Your task to perform on an android device: turn on improve location accuracy Image 0: 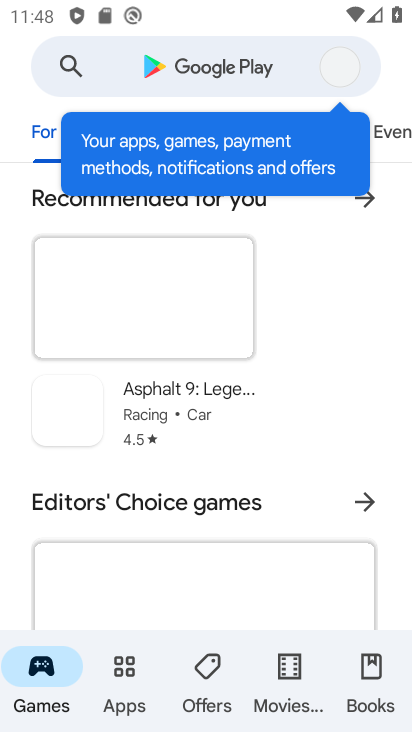
Step 0: press home button
Your task to perform on an android device: turn on improve location accuracy Image 1: 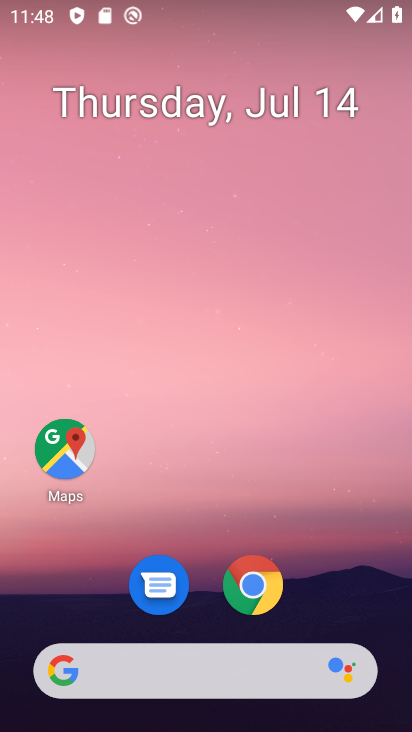
Step 1: drag from (233, 536) to (255, 114)
Your task to perform on an android device: turn on improve location accuracy Image 2: 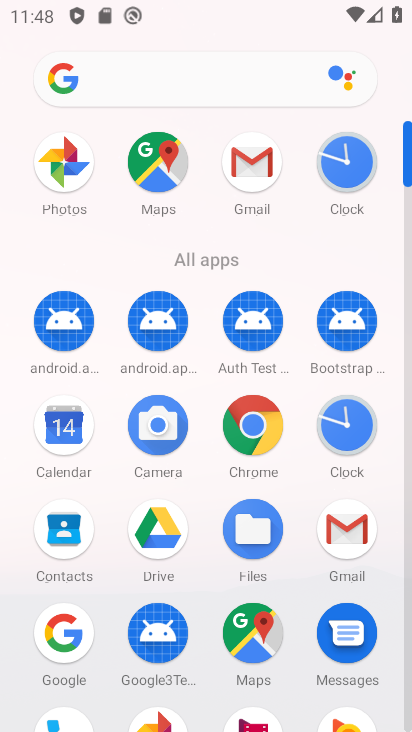
Step 2: drag from (212, 494) to (227, 144)
Your task to perform on an android device: turn on improve location accuracy Image 3: 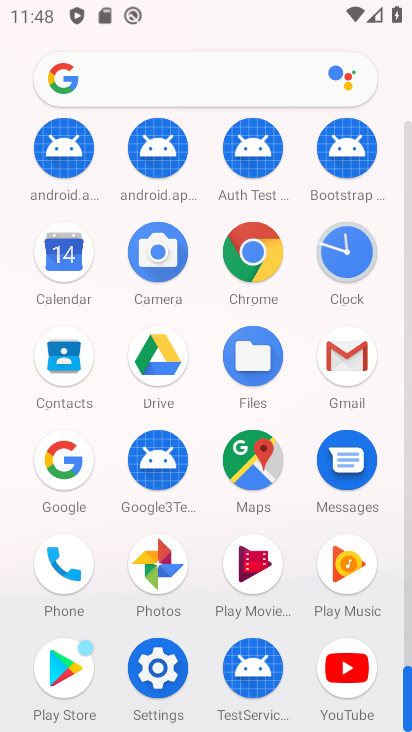
Step 3: click (163, 666)
Your task to perform on an android device: turn on improve location accuracy Image 4: 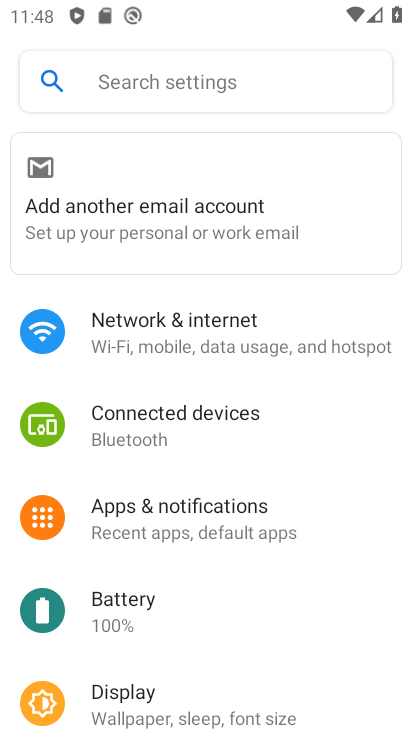
Step 4: drag from (233, 594) to (210, 226)
Your task to perform on an android device: turn on improve location accuracy Image 5: 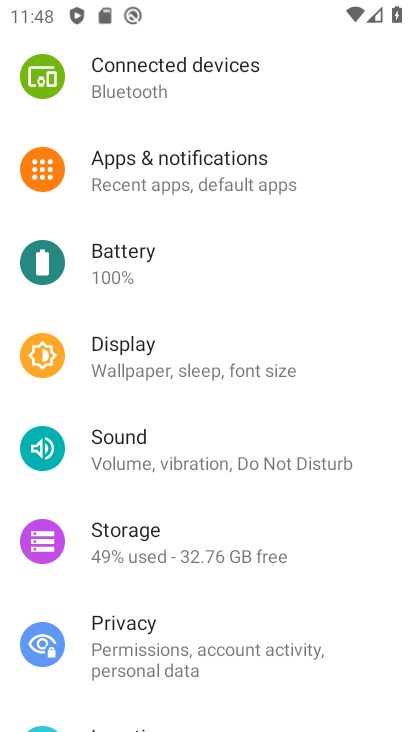
Step 5: drag from (213, 525) to (233, 231)
Your task to perform on an android device: turn on improve location accuracy Image 6: 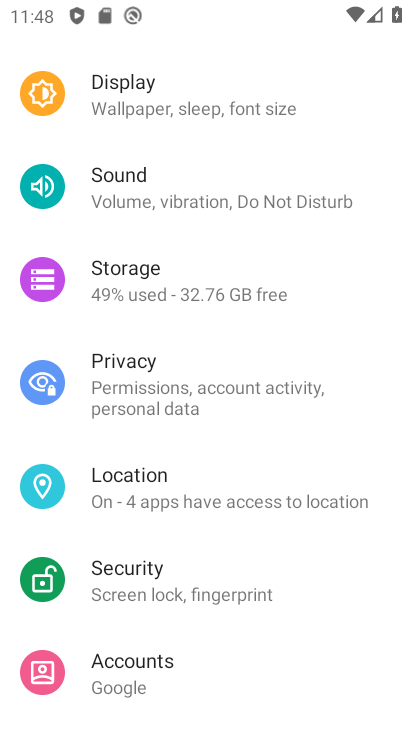
Step 6: click (213, 489)
Your task to perform on an android device: turn on improve location accuracy Image 7: 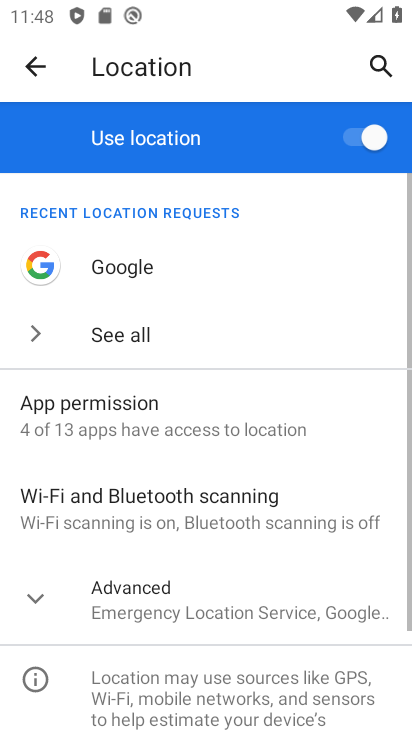
Step 7: click (30, 596)
Your task to perform on an android device: turn on improve location accuracy Image 8: 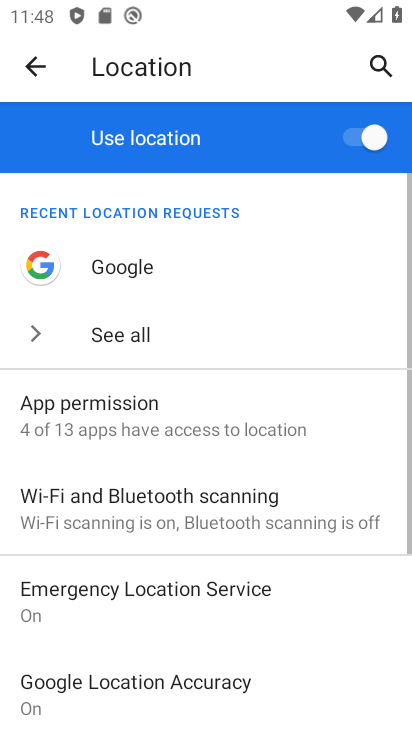
Step 8: drag from (241, 564) to (276, 270)
Your task to perform on an android device: turn on improve location accuracy Image 9: 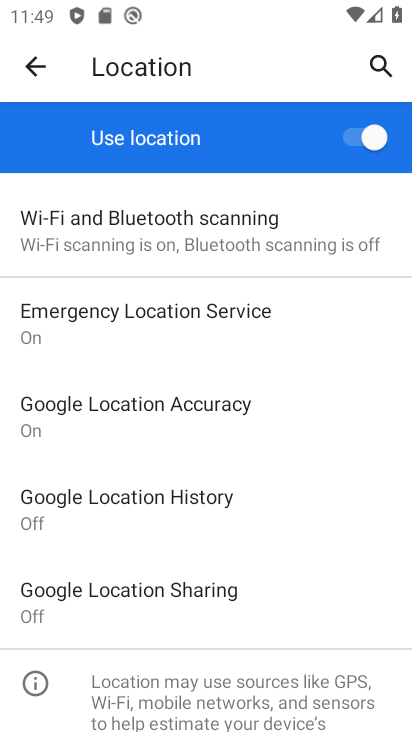
Step 9: click (180, 419)
Your task to perform on an android device: turn on improve location accuracy Image 10: 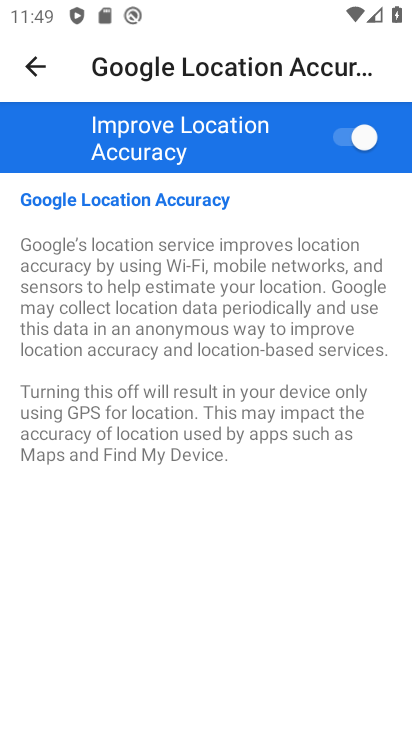
Step 10: task complete